Your task to perform on an android device: What's the weather? Image 0: 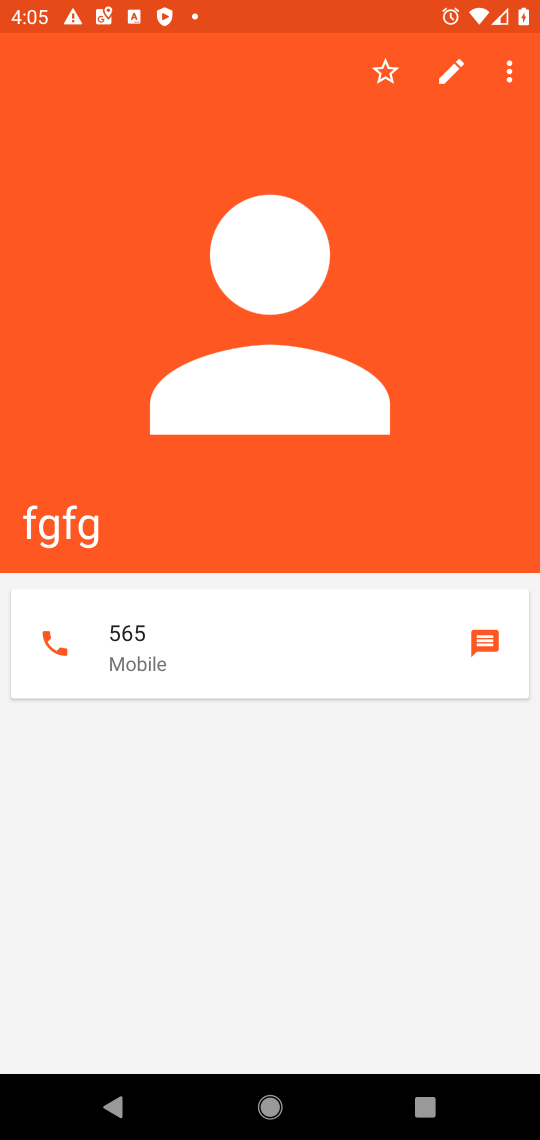
Step 0: press home button
Your task to perform on an android device: What's the weather? Image 1: 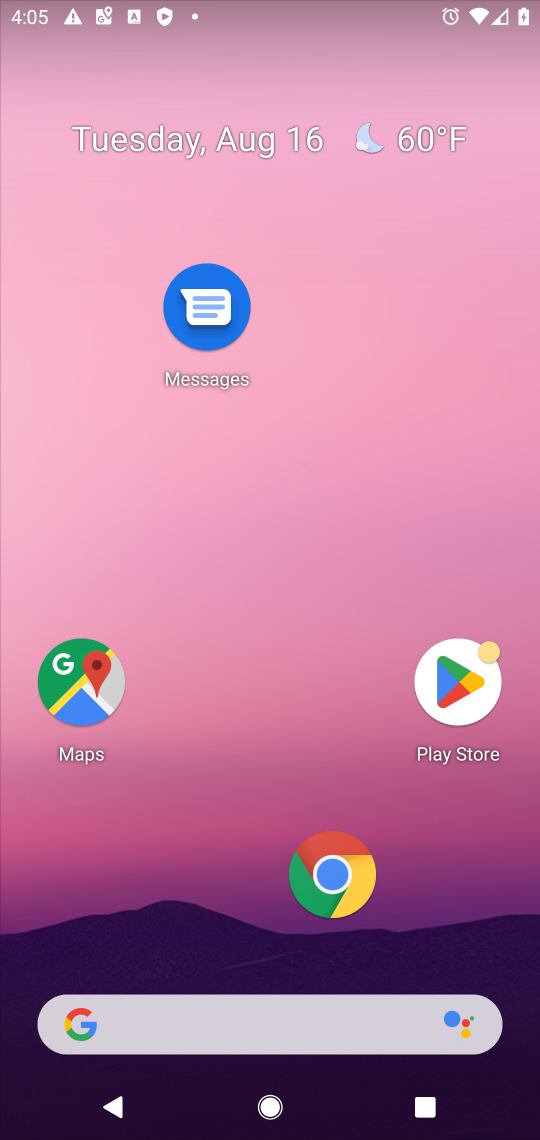
Step 1: click (223, 1037)
Your task to perform on an android device: What's the weather? Image 2: 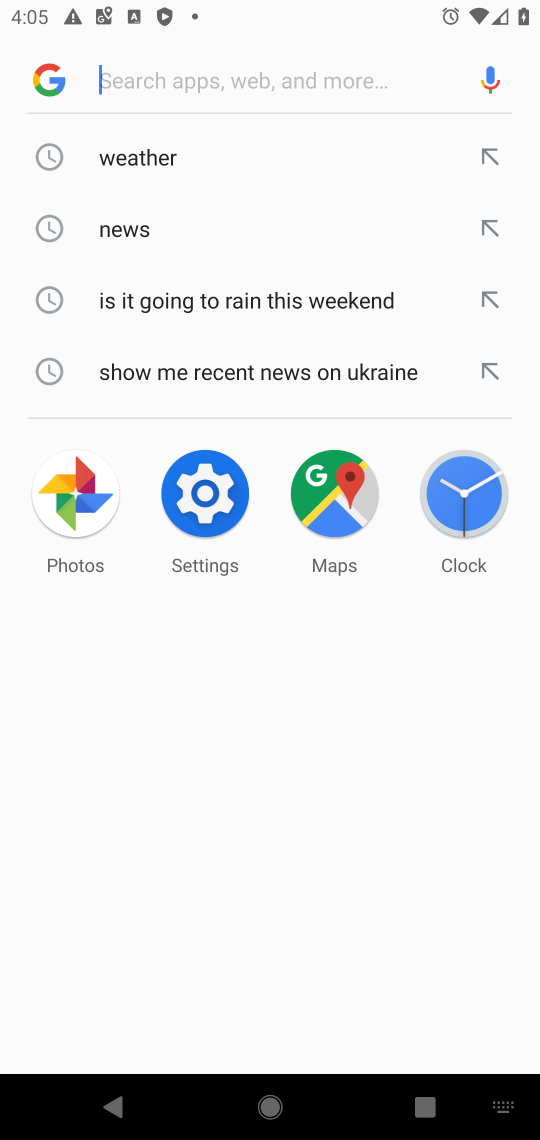
Step 2: click (148, 160)
Your task to perform on an android device: What's the weather? Image 3: 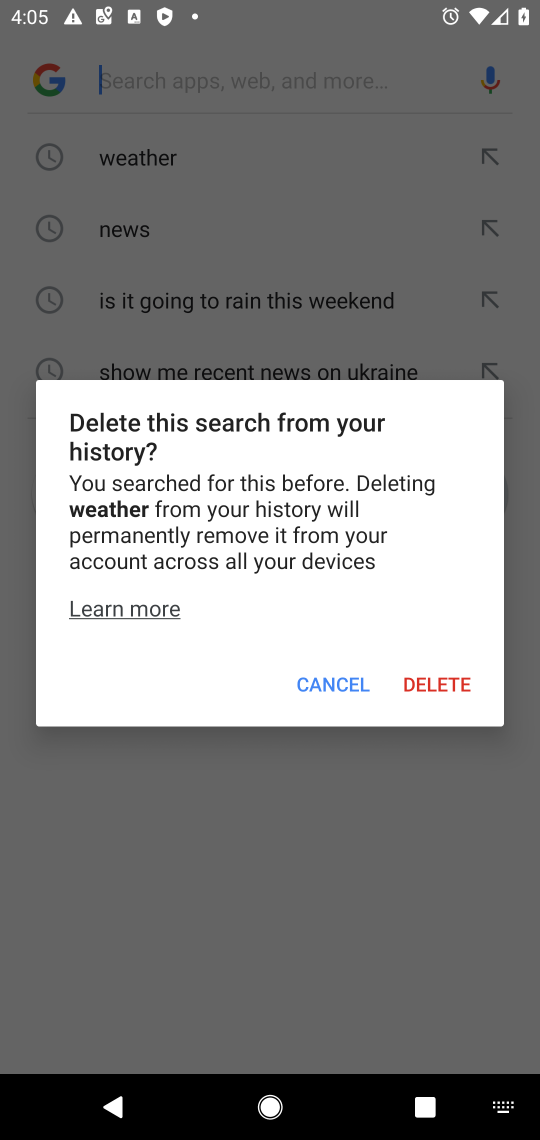
Step 3: click (329, 679)
Your task to perform on an android device: What's the weather? Image 4: 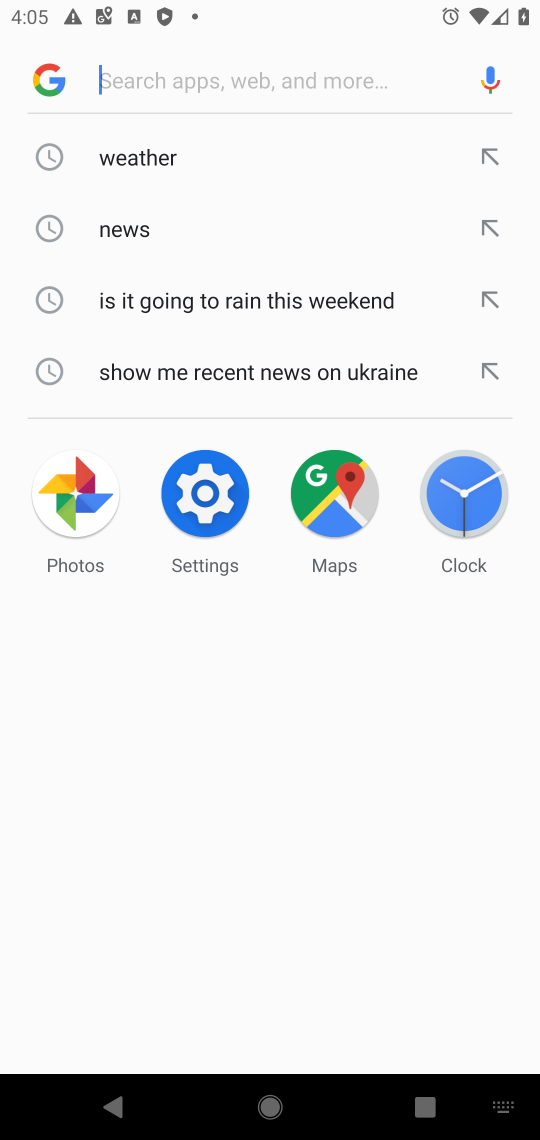
Step 4: click (148, 163)
Your task to perform on an android device: What's the weather? Image 5: 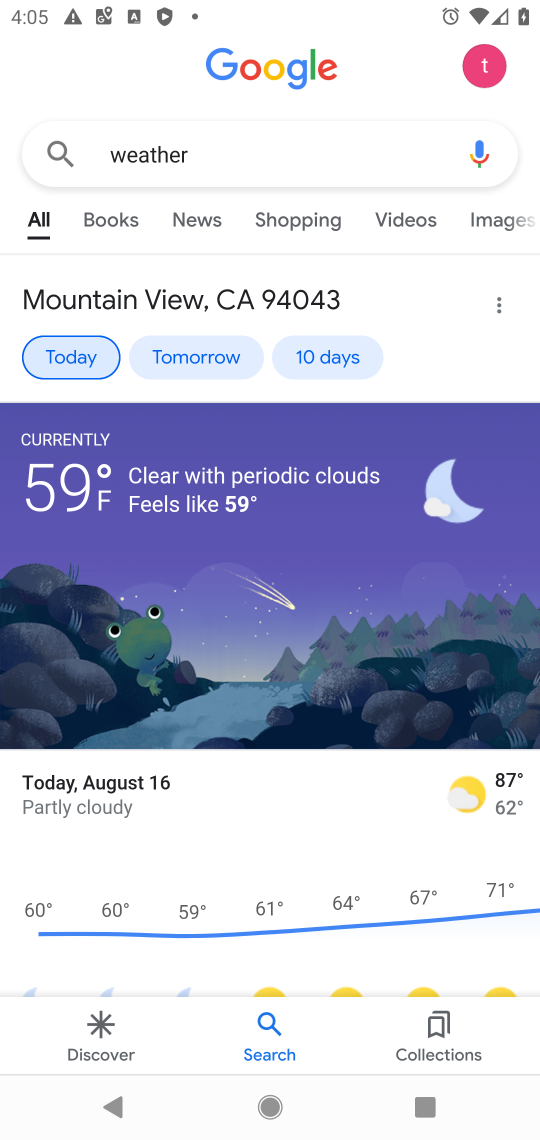
Step 5: task complete